Your task to perform on an android device: open device folders in google photos Image 0: 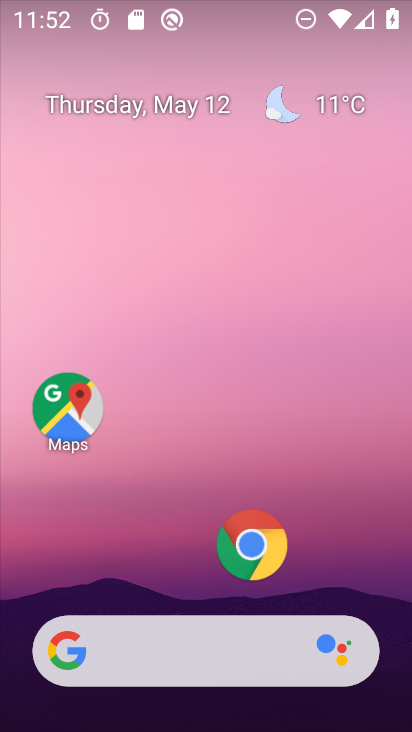
Step 0: drag from (196, 597) to (218, 154)
Your task to perform on an android device: open device folders in google photos Image 1: 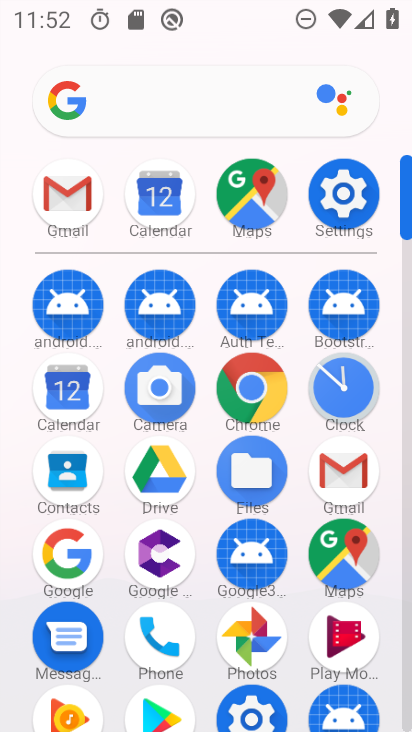
Step 1: click (247, 632)
Your task to perform on an android device: open device folders in google photos Image 2: 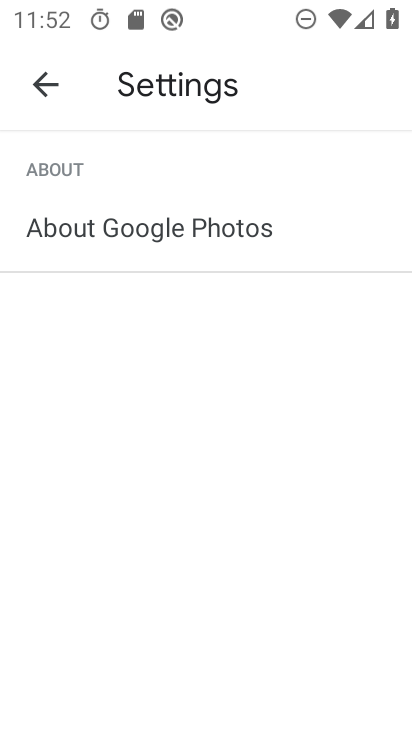
Step 2: click (52, 87)
Your task to perform on an android device: open device folders in google photos Image 3: 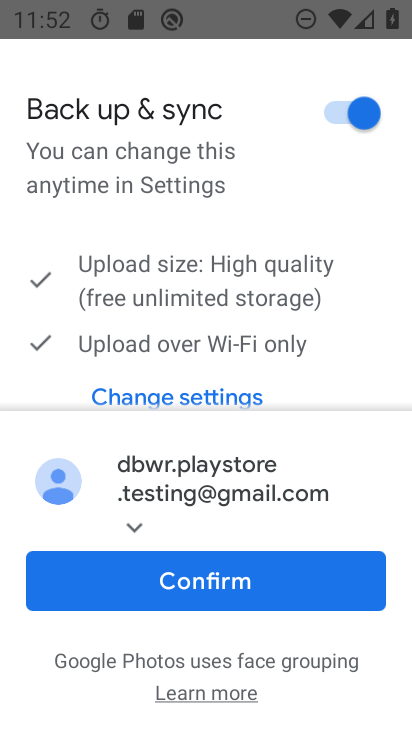
Step 3: click (214, 589)
Your task to perform on an android device: open device folders in google photos Image 4: 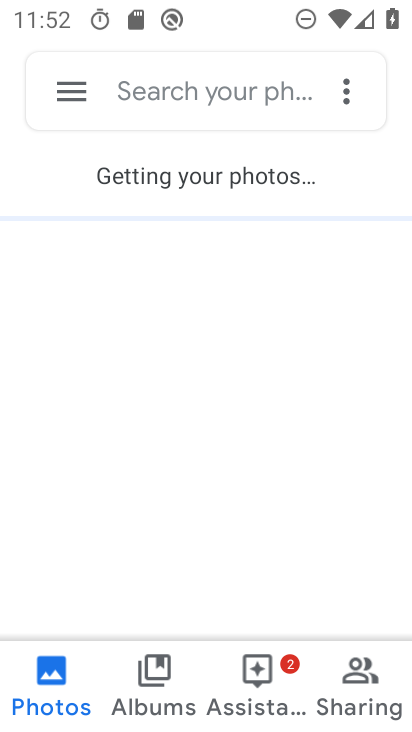
Step 4: click (66, 85)
Your task to perform on an android device: open device folders in google photos Image 5: 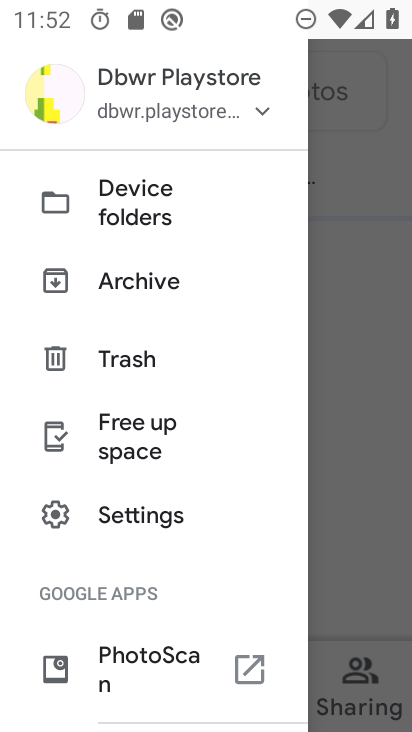
Step 5: click (83, 198)
Your task to perform on an android device: open device folders in google photos Image 6: 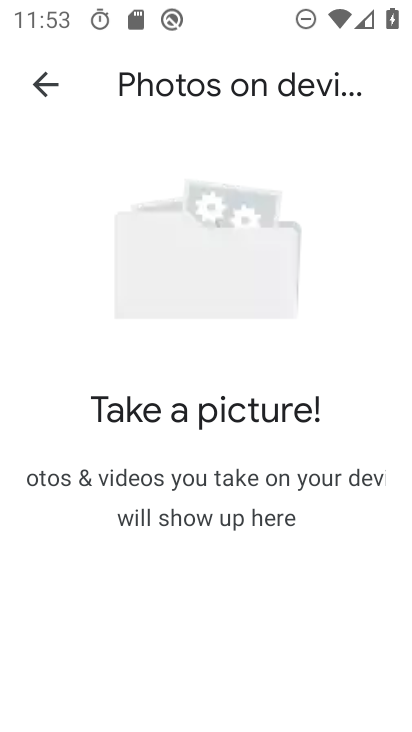
Step 6: task complete